Your task to perform on an android device: toggle priority inbox in the gmail app Image 0: 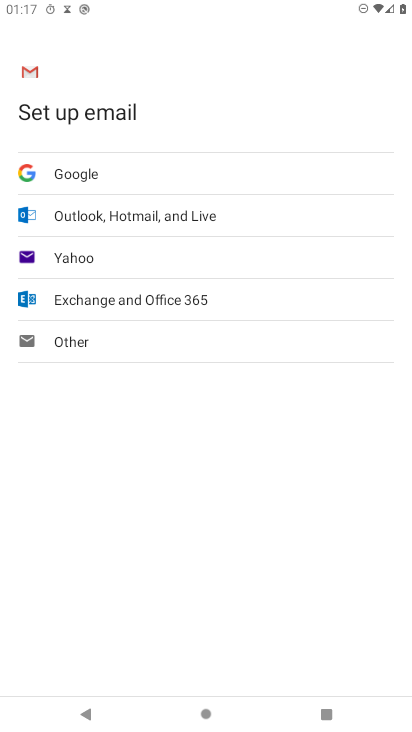
Step 0: press home button
Your task to perform on an android device: toggle priority inbox in the gmail app Image 1: 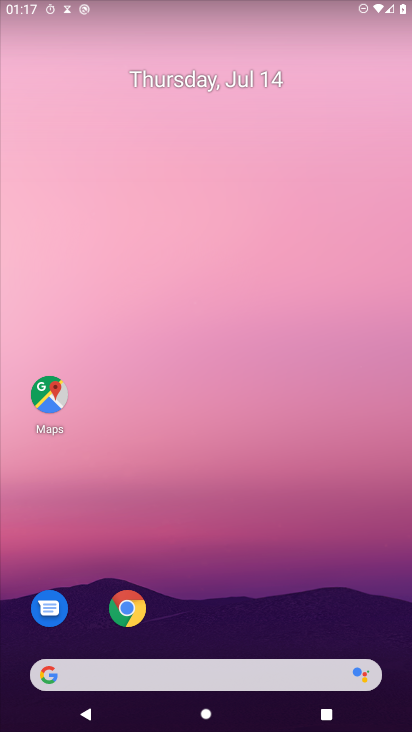
Step 1: drag from (320, 533) to (334, 18)
Your task to perform on an android device: toggle priority inbox in the gmail app Image 2: 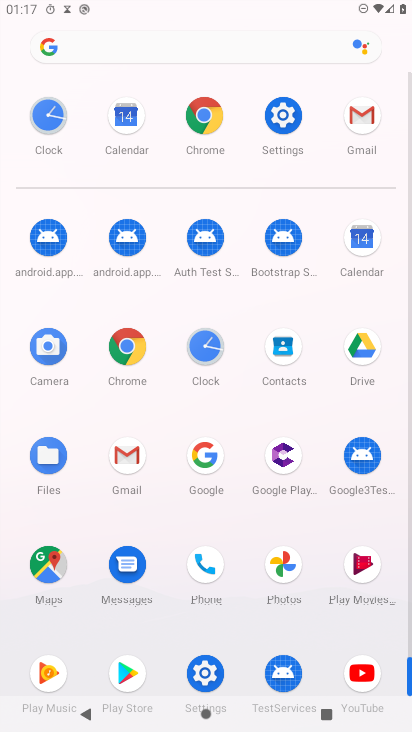
Step 2: click (358, 126)
Your task to perform on an android device: toggle priority inbox in the gmail app Image 3: 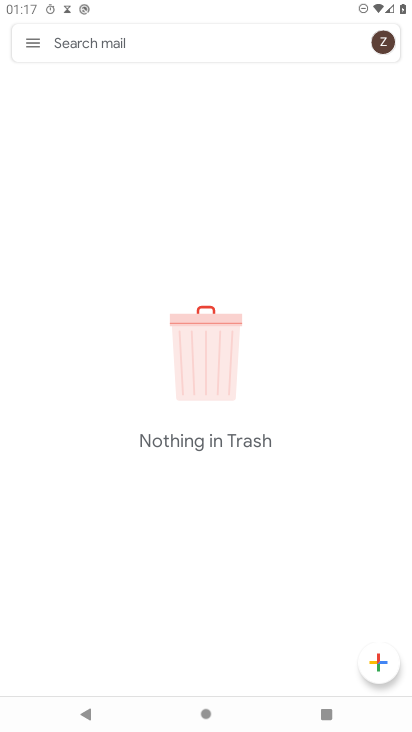
Step 3: click (26, 43)
Your task to perform on an android device: toggle priority inbox in the gmail app Image 4: 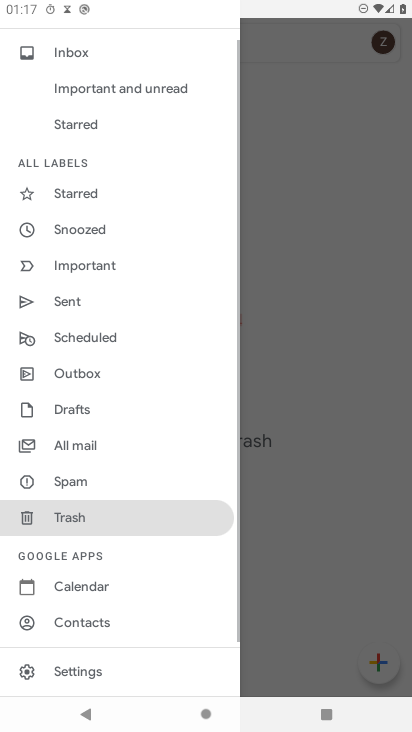
Step 4: click (69, 669)
Your task to perform on an android device: toggle priority inbox in the gmail app Image 5: 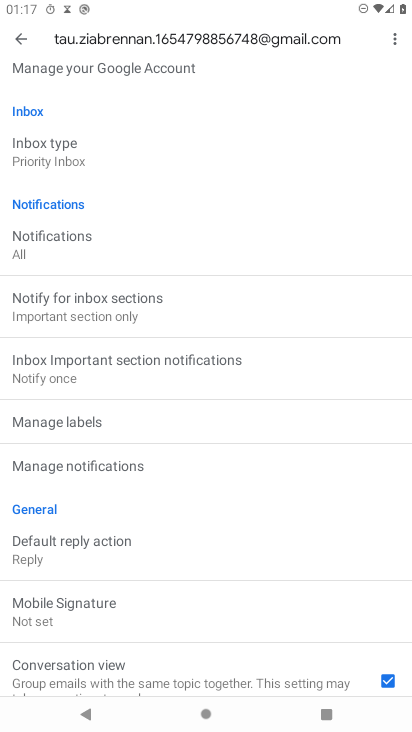
Step 5: click (38, 149)
Your task to perform on an android device: toggle priority inbox in the gmail app Image 6: 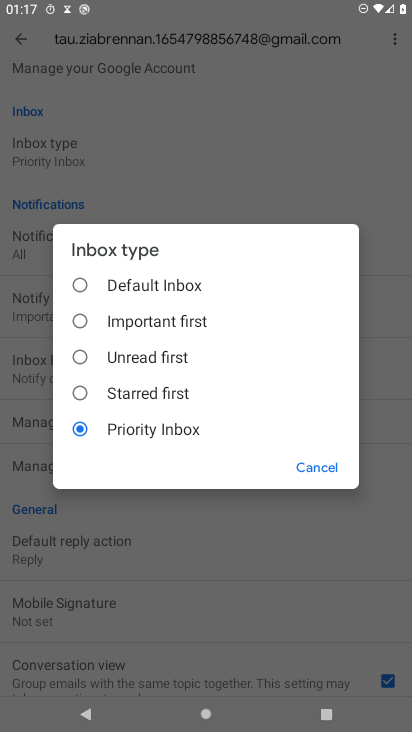
Step 6: click (137, 280)
Your task to perform on an android device: toggle priority inbox in the gmail app Image 7: 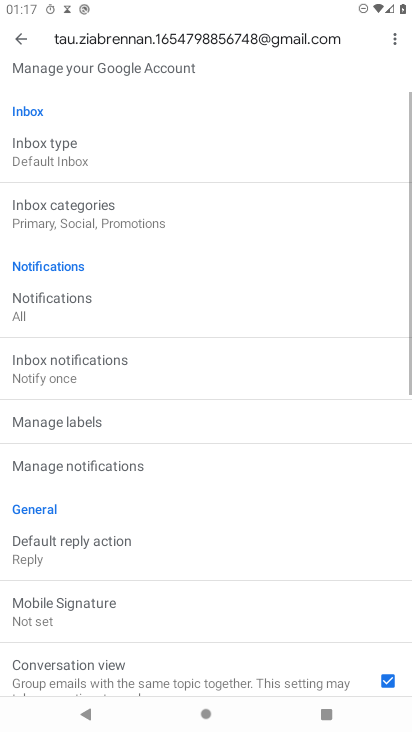
Step 7: task complete